Your task to perform on an android device: add a contact Image 0: 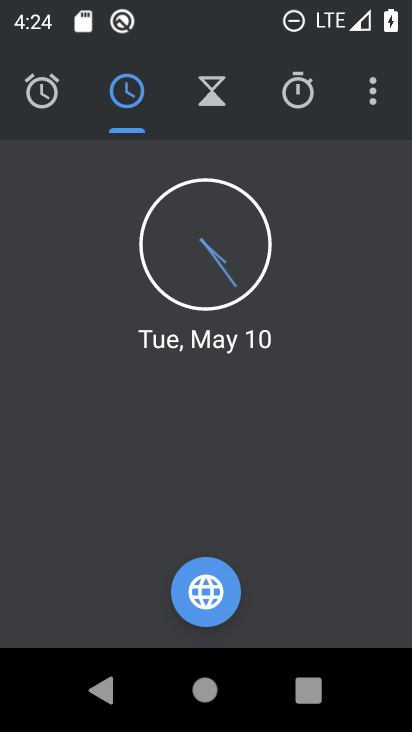
Step 0: press home button
Your task to perform on an android device: add a contact Image 1: 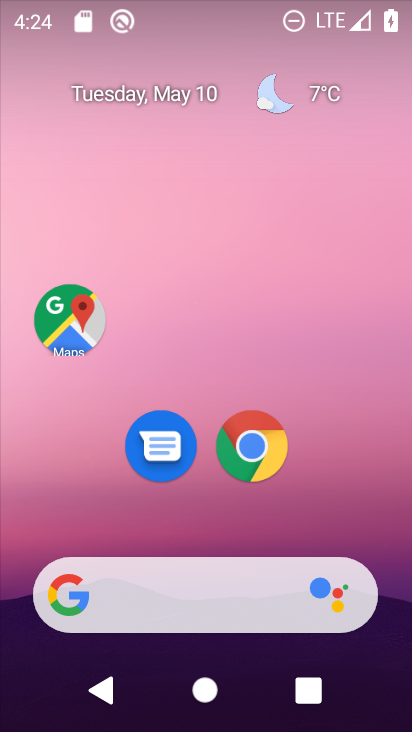
Step 1: drag from (329, 468) to (244, 54)
Your task to perform on an android device: add a contact Image 2: 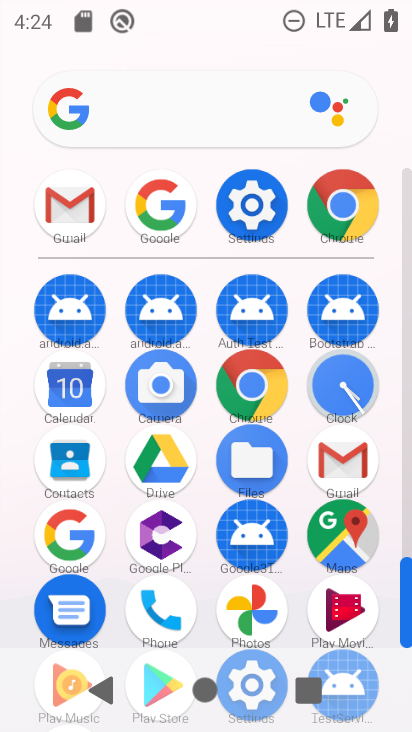
Step 2: click (62, 392)
Your task to perform on an android device: add a contact Image 3: 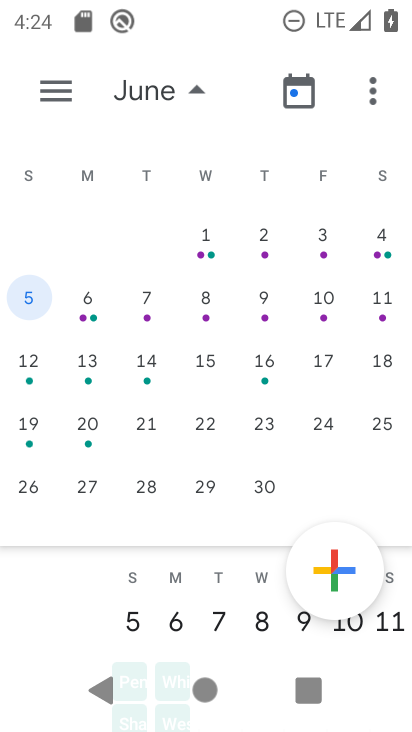
Step 3: press back button
Your task to perform on an android device: add a contact Image 4: 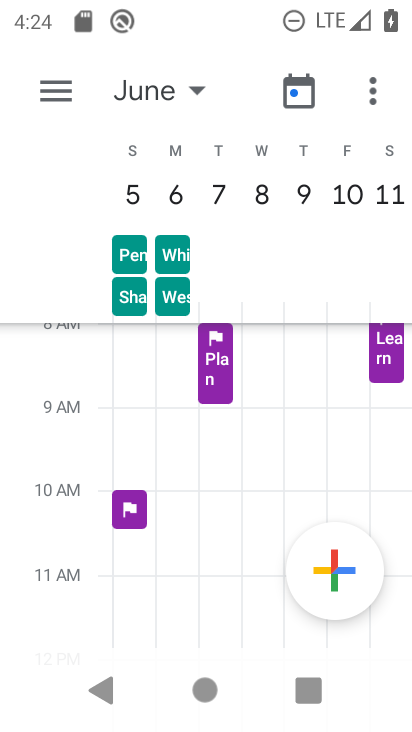
Step 4: press back button
Your task to perform on an android device: add a contact Image 5: 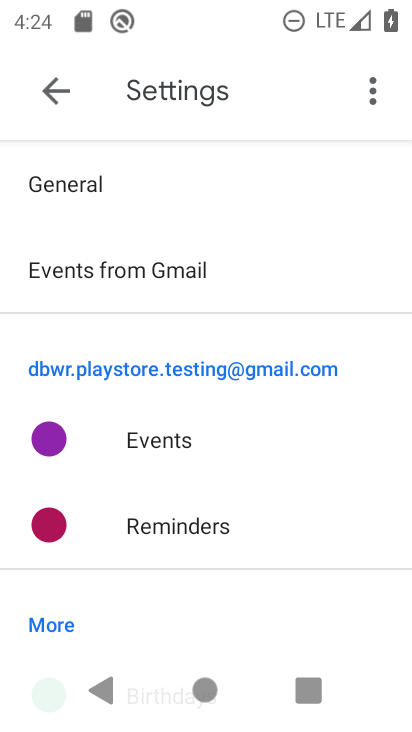
Step 5: press back button
Your task to perform on an android device: add a contact Image 6: 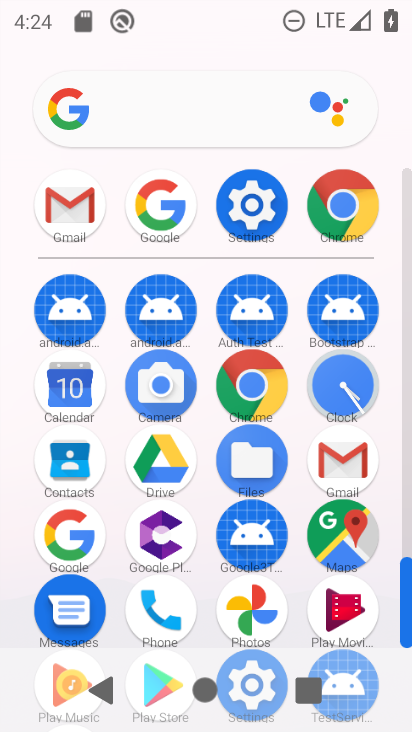
Step 6: click (64, 473)
Your task to perform on an android device: add a contact Image 7: 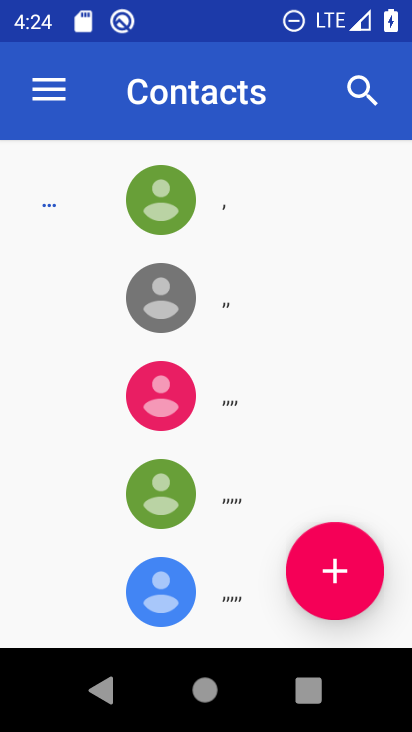
Step 7: click (337, 588)
Your task to perform on an android device: add a contact Image 8: 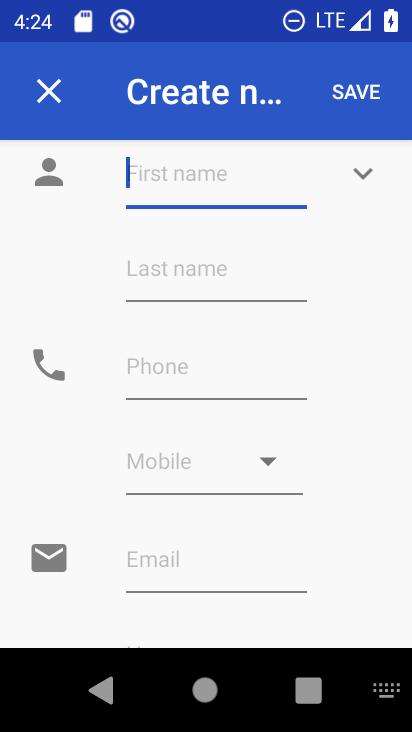
Step 8: type "cv vc"
Your task to perform on an android device: add a contact Image 9: 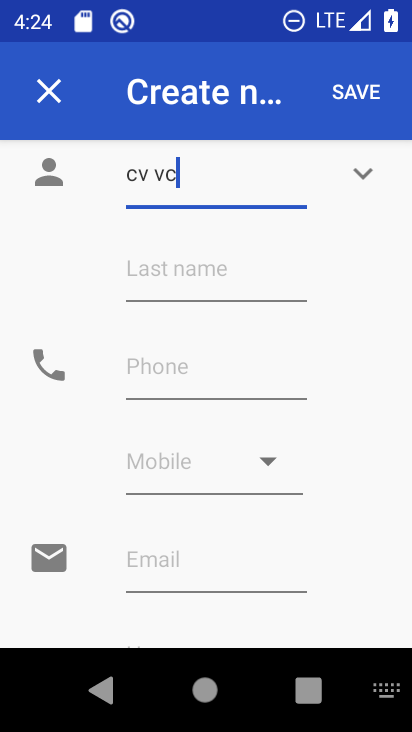
Step 9: type ""
Your task to perform on an android device: add a contact Image 10: 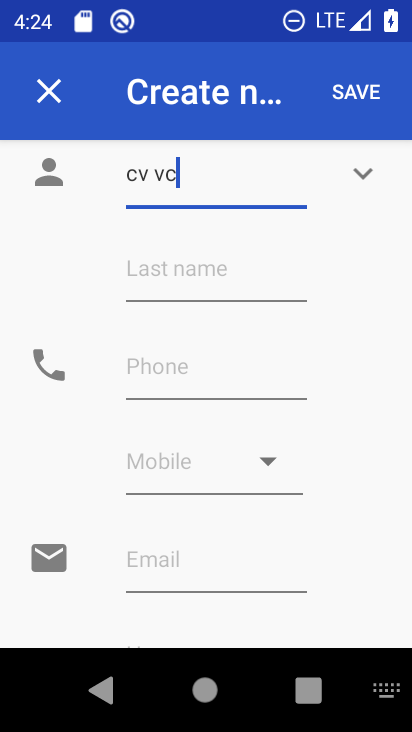
Step 10: click (213, 271)
Your task to perform on an android device: add a contact Image 11: 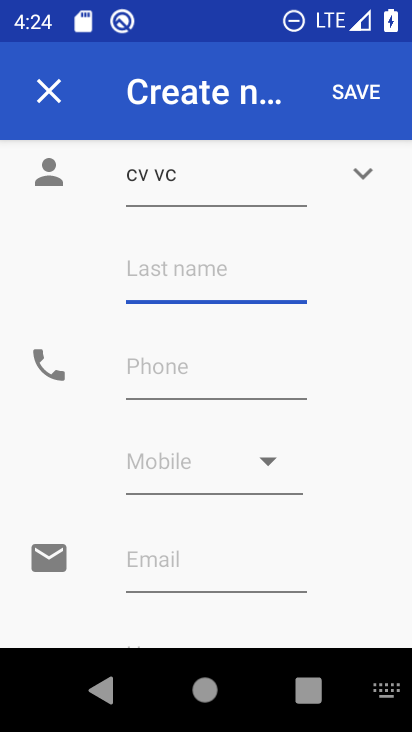
Step 11: type "vc d"
Your task to perform on an android device: add a contact Image 12: 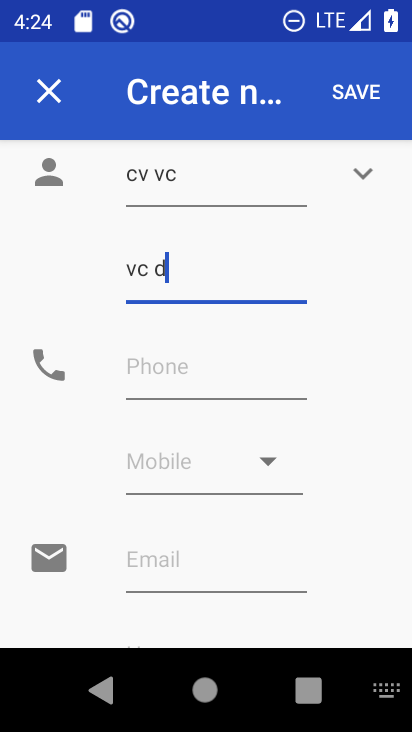
Step 12: type ""
Your task to perform on an android device: add a contact Image 13: 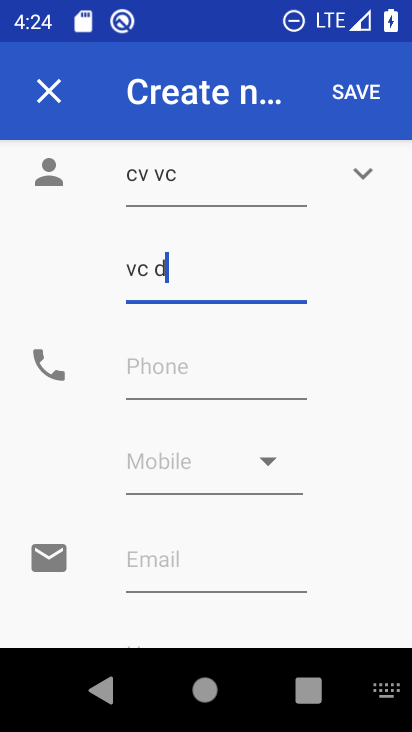
Step 13: click (196, 382)
Your task to perform on an android device: add a contact Image 14: 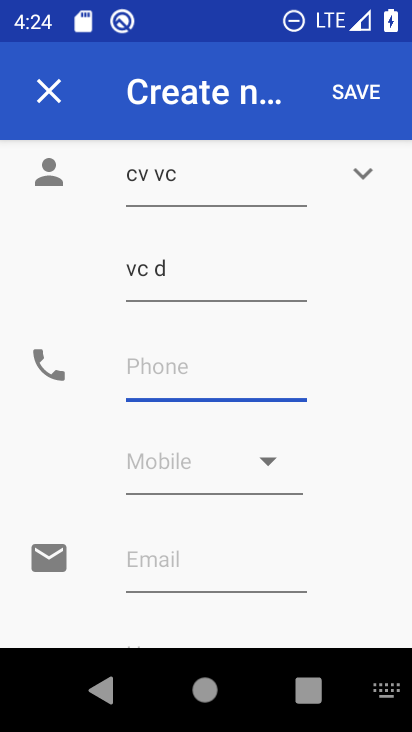
Step 14: type "45453453"
Your task to perform on an android device: add a contact Image 15: 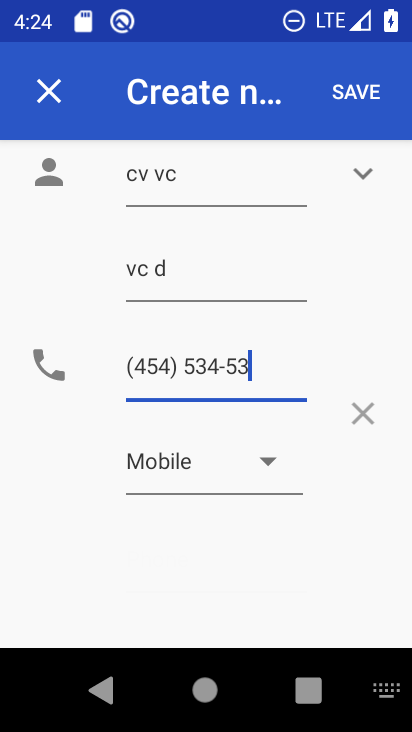
Step 15: type ""
Your task to perform on an android device: add a contact Image 16: 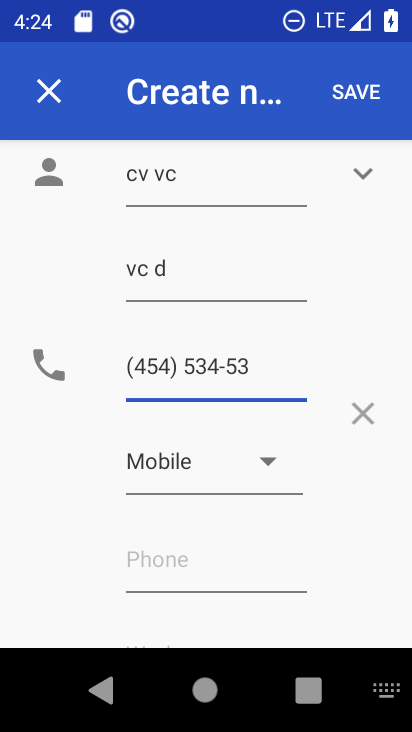
Step 16: click (340, 93)
Your task to perform on an android device: add a contact Image 17: 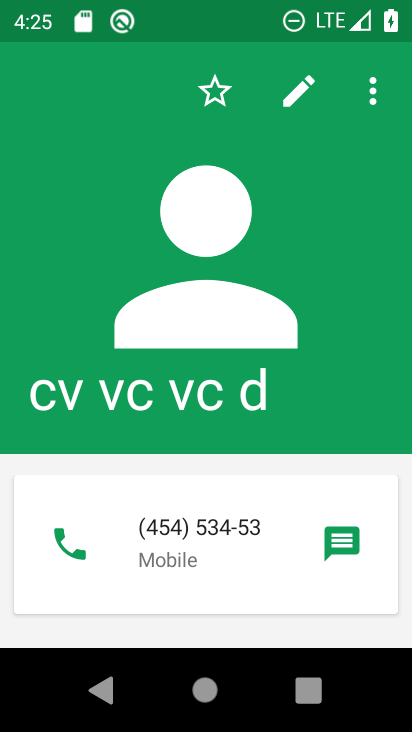
Step 17: task complete